Your task to perform on an android device: turn on bluetooth scan Image 0: 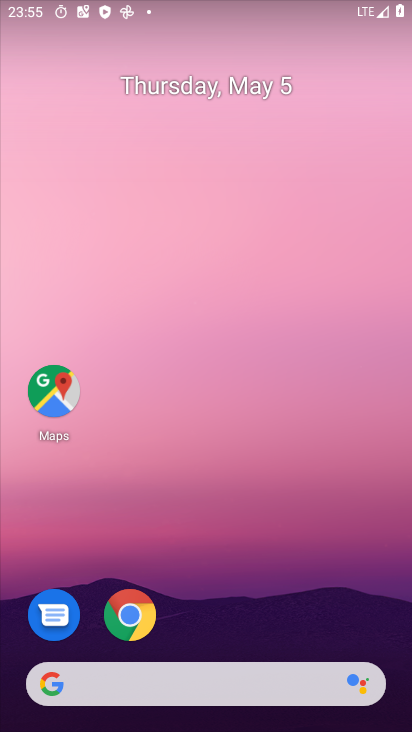
Step 0: drag from (268, 607) to (244, 12)
Your task to perform on an android device: turn on bluetooth scan Image 1: 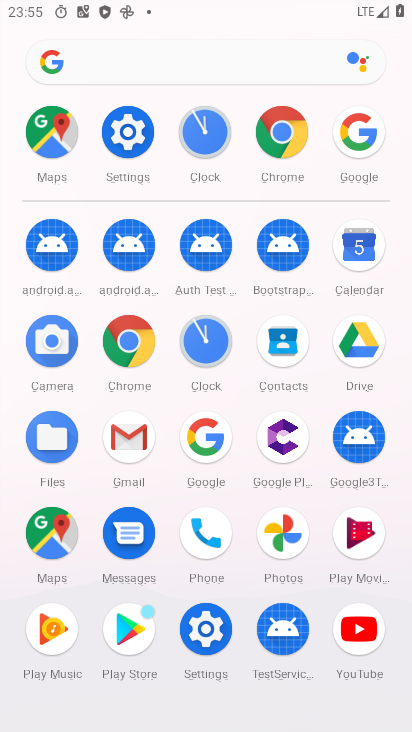
Step 1: click (209, 623)
Your task to perform on an android device: turn on bluetooth scan Image 2: 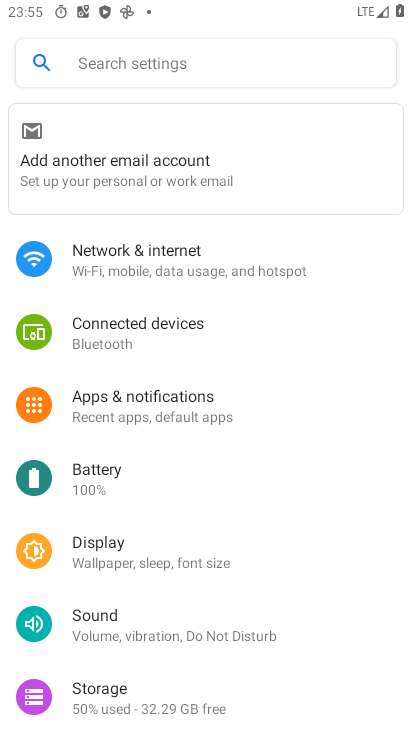
Step 2: drag from (183, 645) to (222, 142)
Your task to perform on an android device: turn on bluetooth scan Image 3: 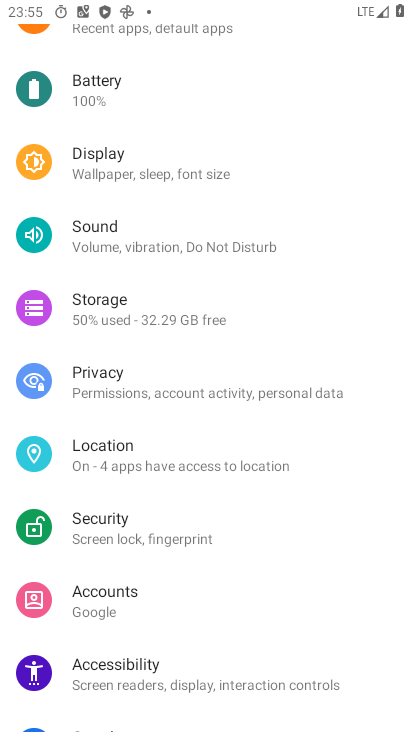
Step 3: drag from (206, 555) to (247, 55)
Your task to perform on an android device: turn on bluetooth scan Image 4: 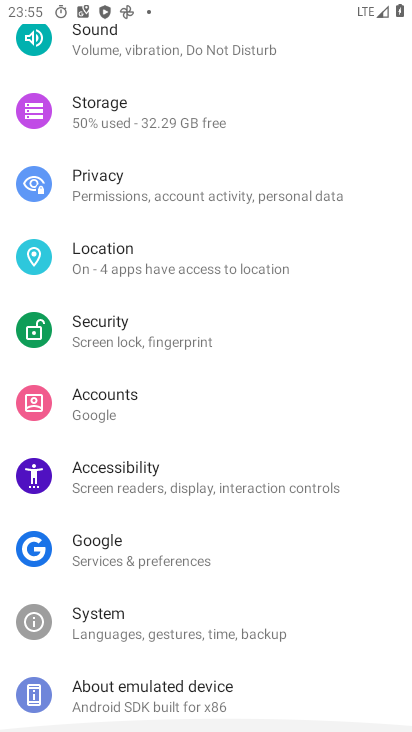
Step 4: drag from (231, 199) to (236, 611)
Your task to perform on an android device: turn on bluetooth scan Image 5: 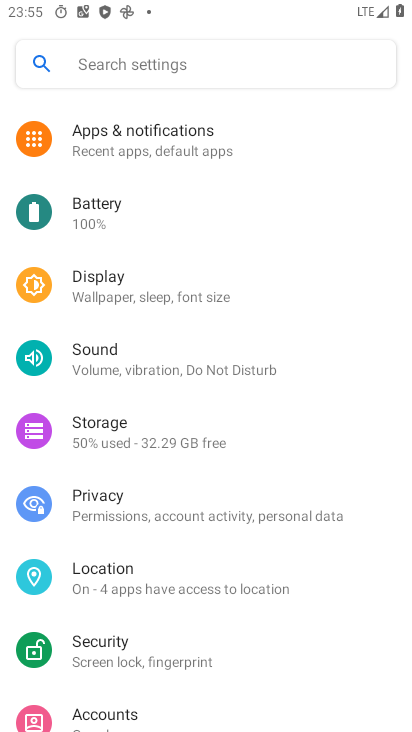
Step 5: click (121, 582)
Your task to perform on an android device: turn on bluetooth scan Image 6: 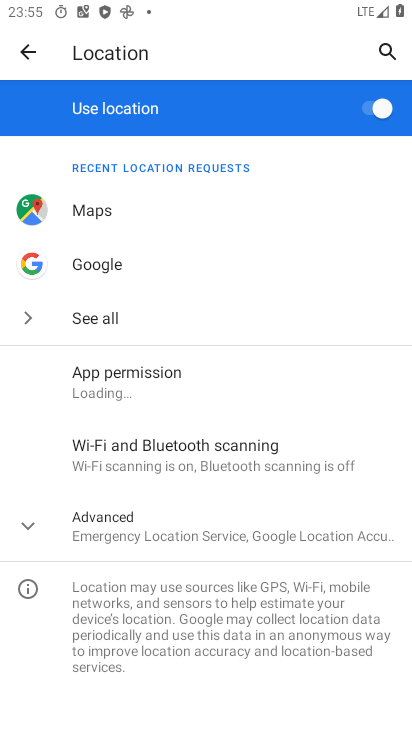
Step 6: click (113, 516)
Your task to perform on an android device: turn on bluetooth scan Image 7: 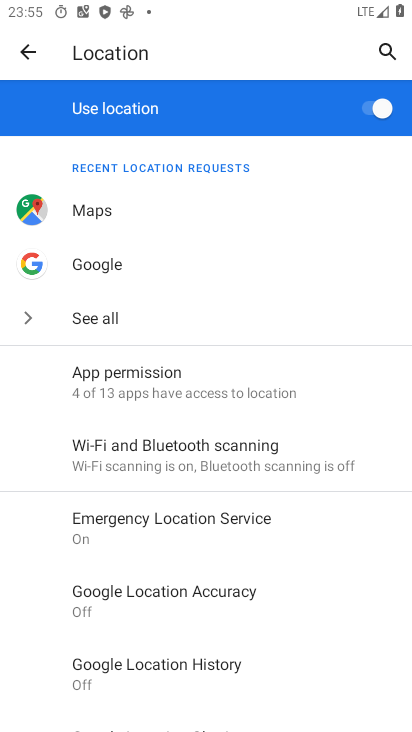
Step 7: click (190, 462)
Your task to perform on an android device: turn on bluetooth scan Image 8: 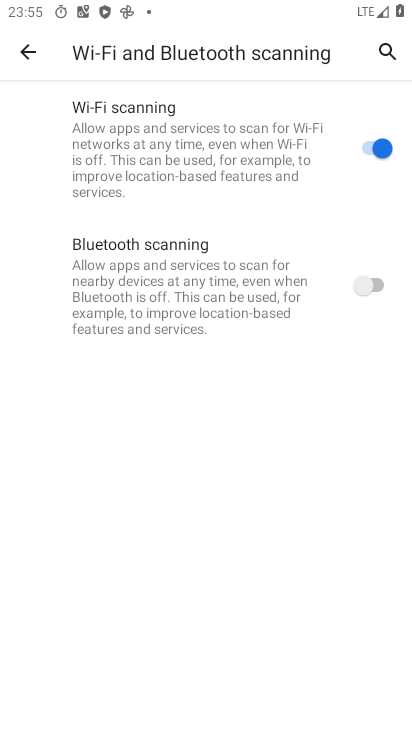
Step 8: click (347, 285)
Your task to perform on an android device: turn on bluetooth scan Image 9: 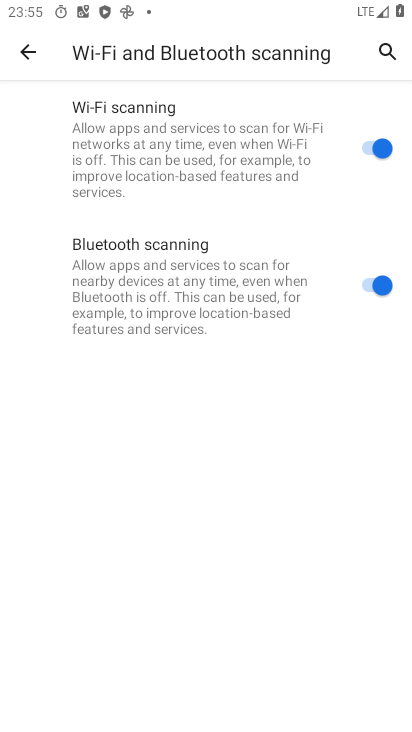
Step 9: task complete